Your task to perform on an android device: Go to Maps Image 0: 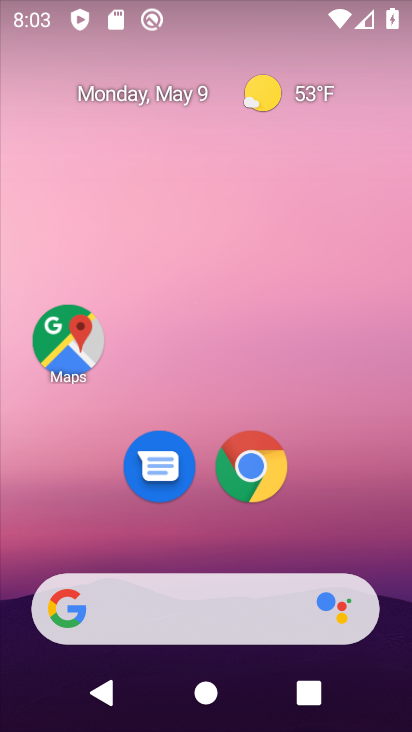
Step 0: click (65, 345)
Your task to perform on an android device: Go to Maps Image 1: 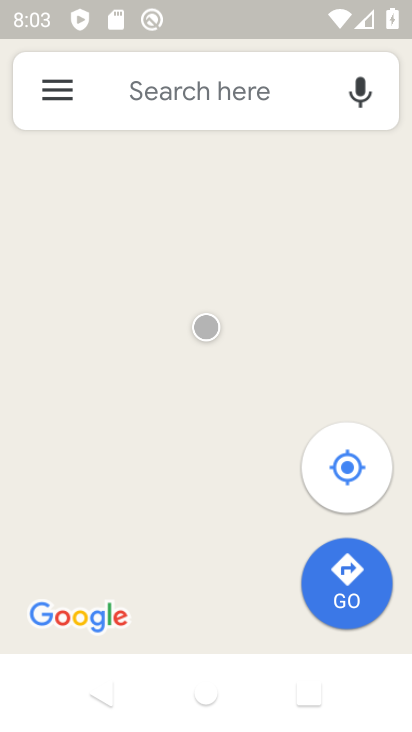
Step 1: task complete